Your task to perform on an android device: find photos in the google photos app Image 0: 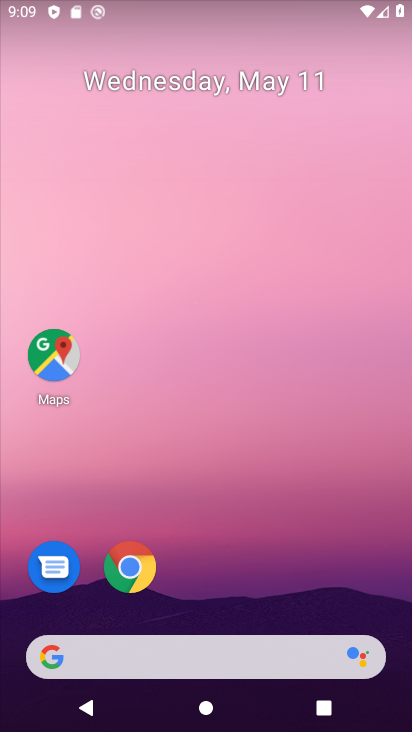
Step 0: drag from (276, 713) to (182, 113)
Your task to perform on an android device: find photos in the google photos app Image 1: 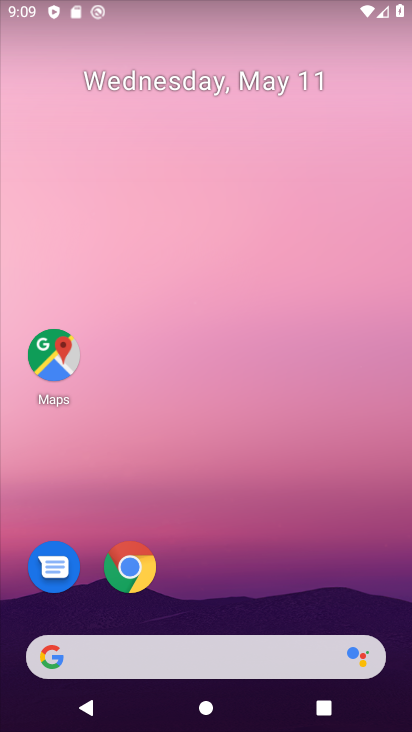
Step 1: drag from (260, 712) to (288, 1)
Your task to perform on an android device: find photos in the google photos app Image 2: 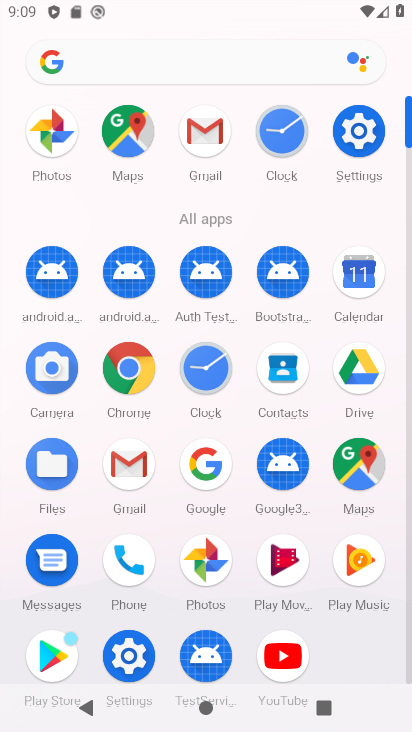
Step 2: click (202, 572)
Your task to perform on an android device: find photos in the google photos app Image 3: 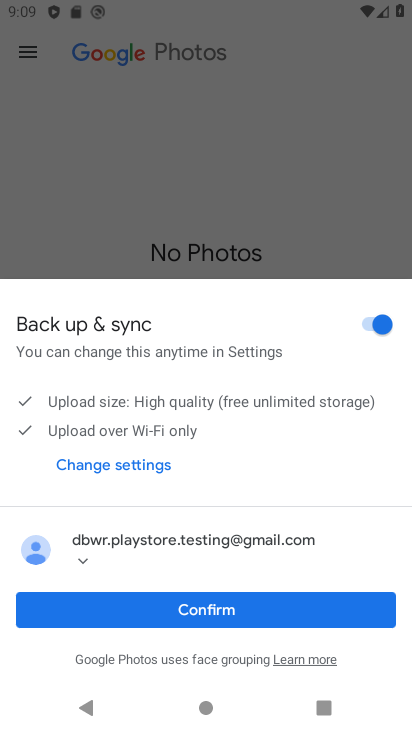
Step 3: click (258, 616)
Your task to perform on an android device: find photos in the google photos app Image 4: 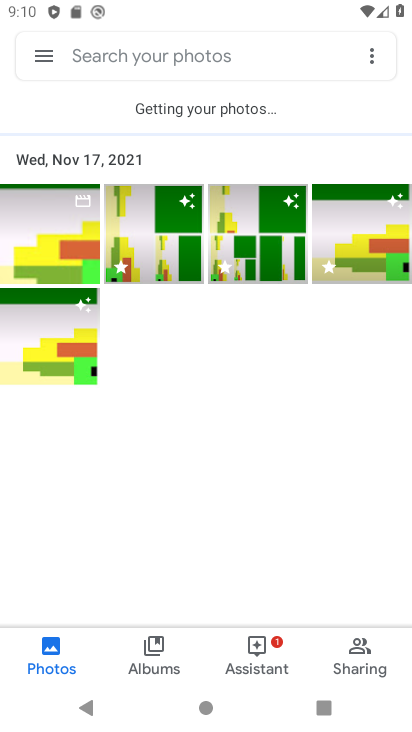
Step 4: task complete